Your task to perform on an android device: turn on improve location accuracy Image 0: 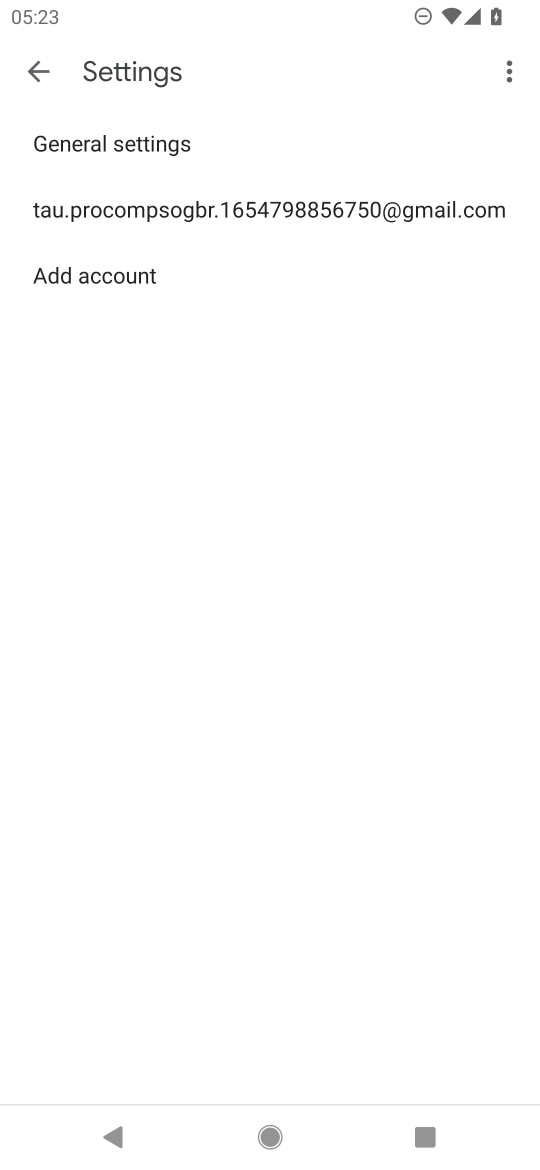
Step 0: press home button
Your task to perform on an android device: turn on improve location accuracy Image 1: 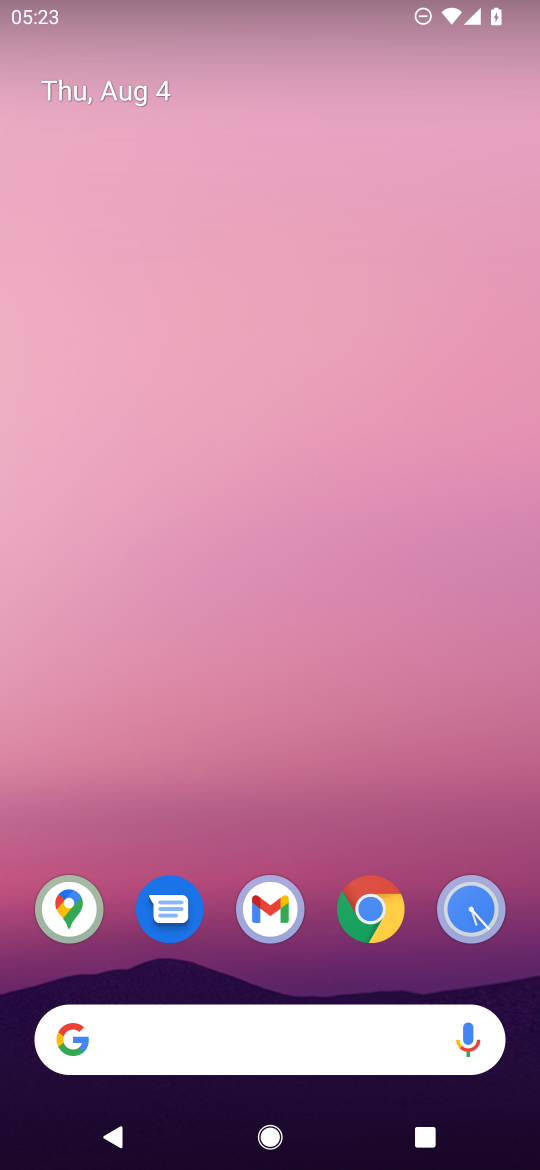
Step 1: drag from (289, 973) to (334, 135)
Your task to perform on an android device: turn on improve location accuracy Image 2: 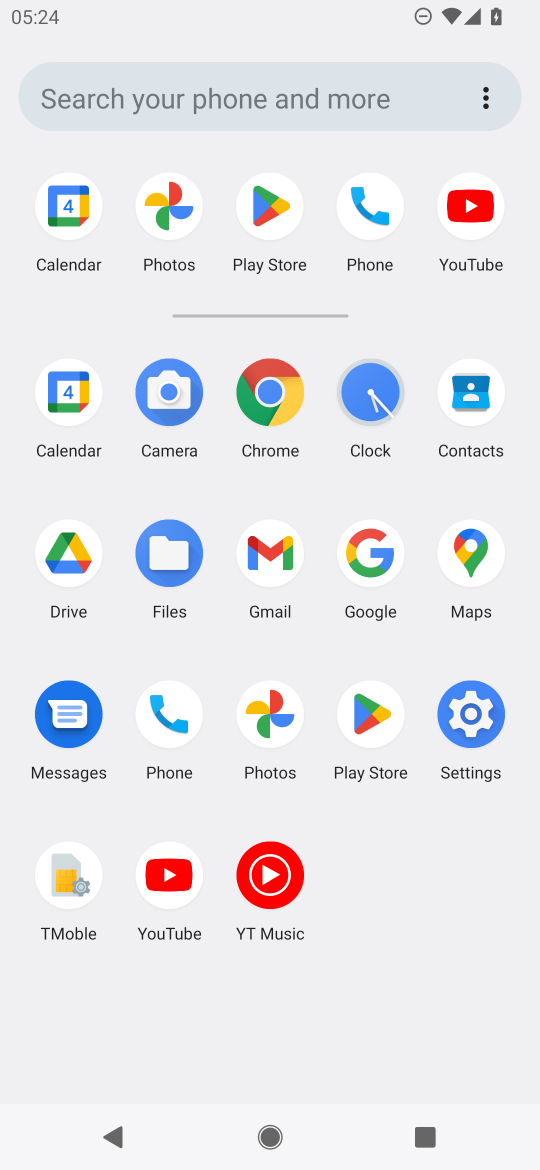
Step 2: click (468, 716)
Your task to perform on an android device: turn on improve location accuracy Image 3: 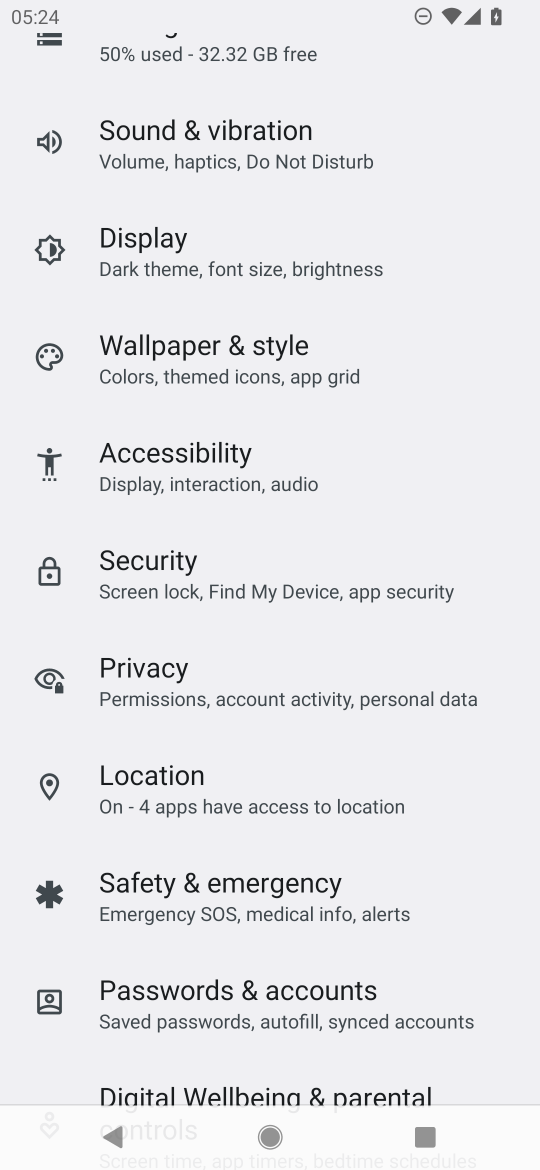
Step 3: click (127, 791)
Your task to perform on an android device: turn on improve location accuracy Image 4: 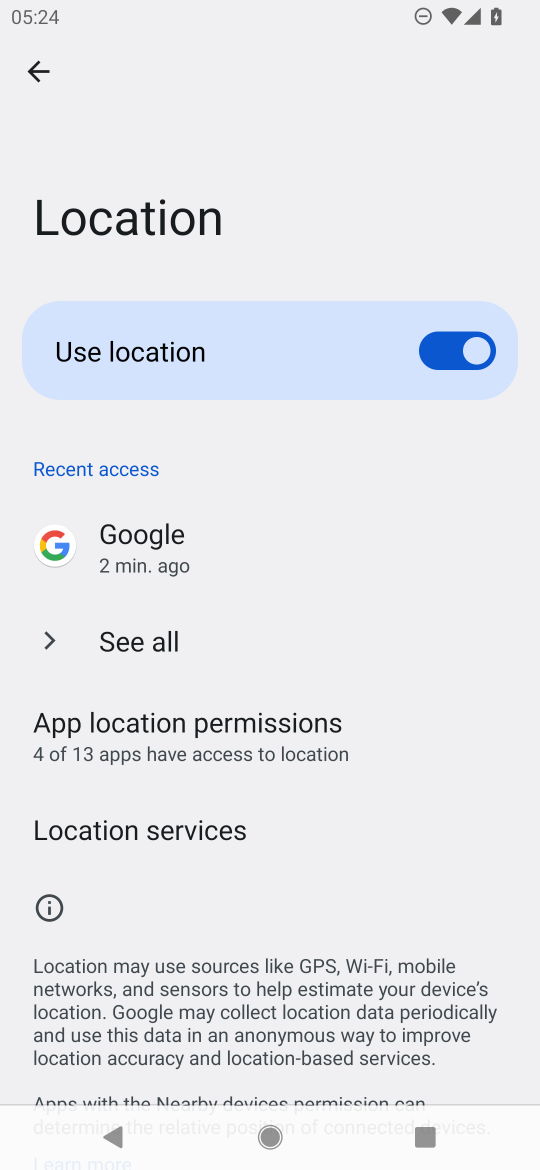
Step 4: drag from (374, 846) to (351, 321)
Your task to perform on an android device: turn on improve location accuracy Image 5: 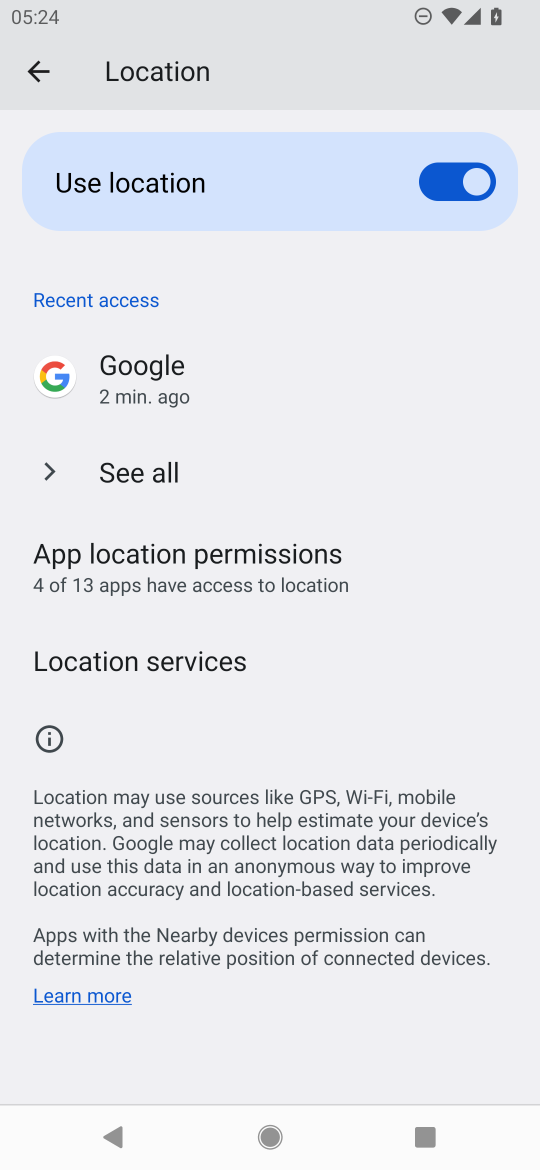
Step 5: click (139, 665)
Your task to perform on an android device: turn on improve location accuracy Image 6: 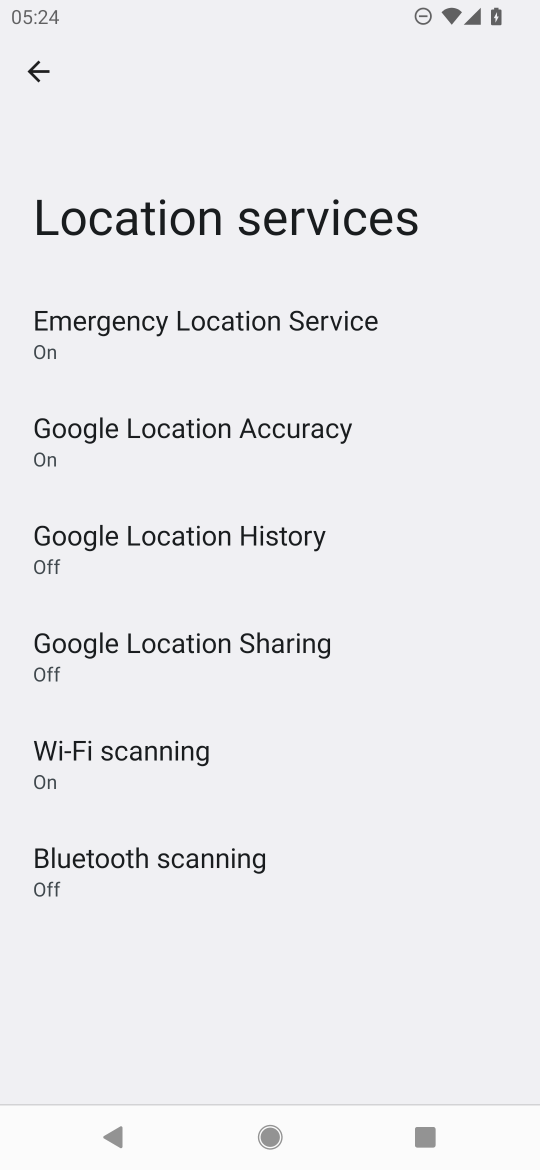
Step 6: click (199, 428)
Your task to perform on an android device: turn on improve location accuracy Image 7: 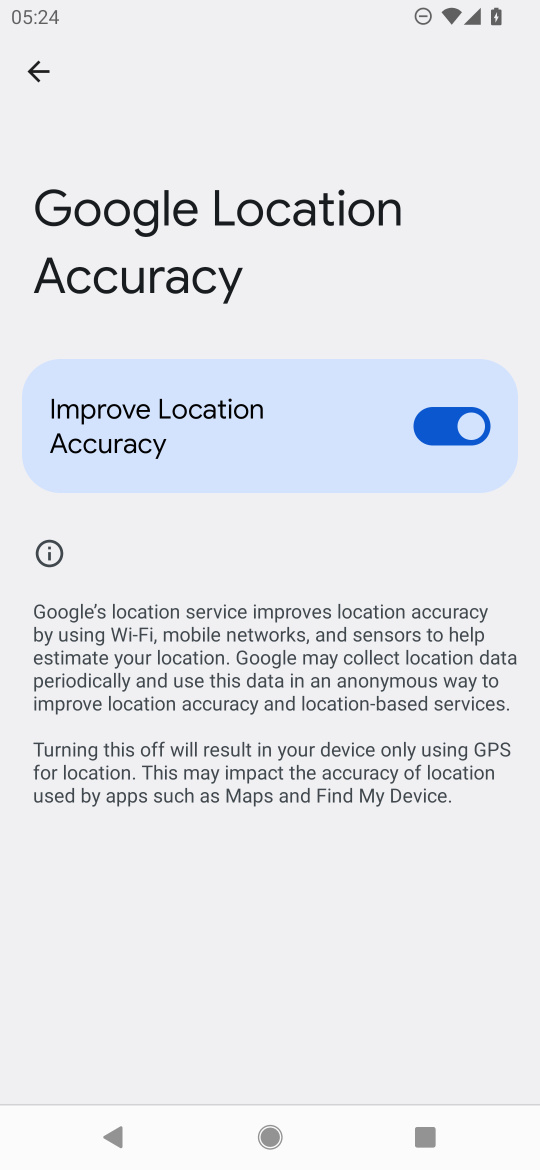
Step 7: task complete